Your task to perform on an android device: Open sound settings Image 0: 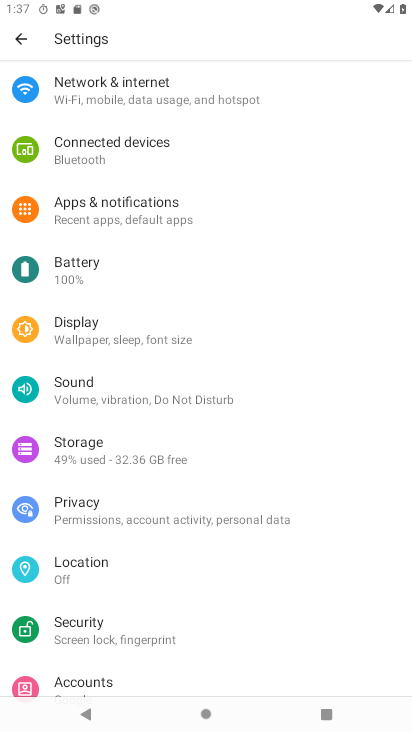
Step 0: click (79, 401)
Your task to perform on an android device: Open sound settings Image 1: 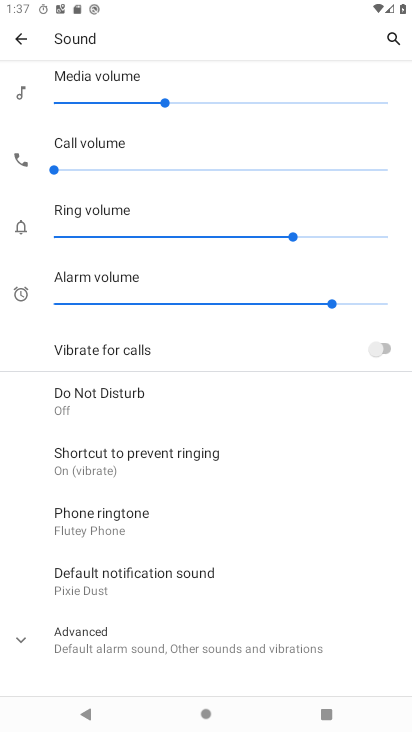
Step 1: task complete